Your task to perform on an android device: Open accessibility settings Image 0: 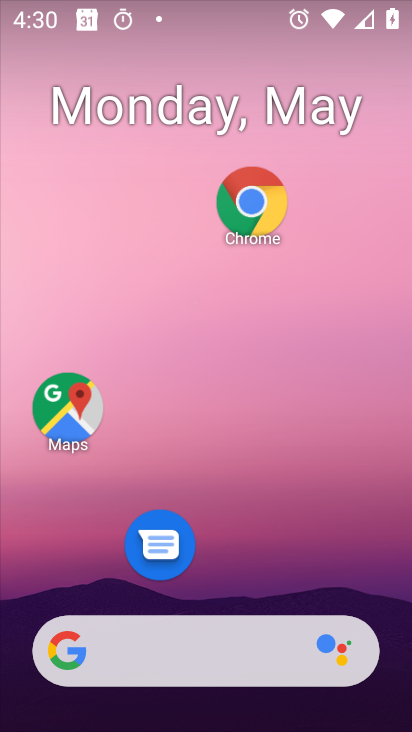
Step 0: drag from (233, 586) to (269, 216)
Your task to perform on an android device: Open accessibility settings Image 1: 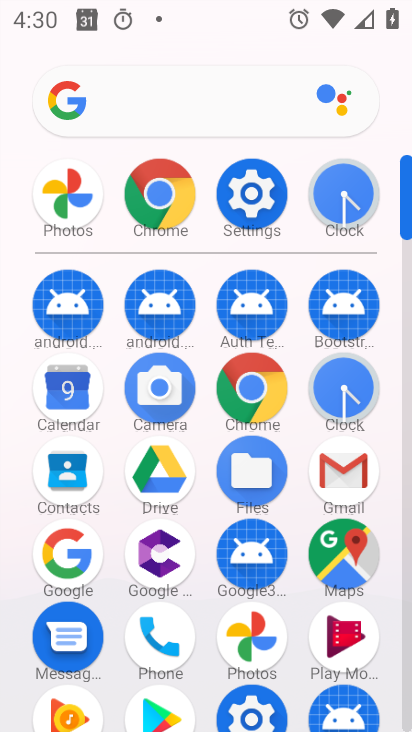
Step 1: click (254, 188)
Your task to perform on an android device: Open accessibility settings Image 2: 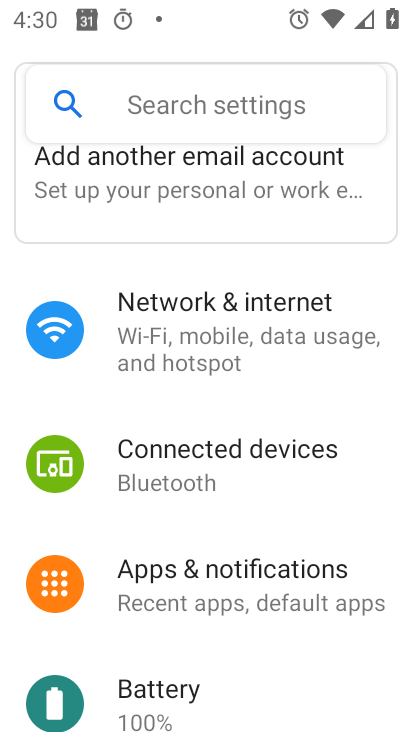
Step 2: drag from (217, 565) to (238, 255)
Your task to perform on an android device: Open accessibility settings Image 3: 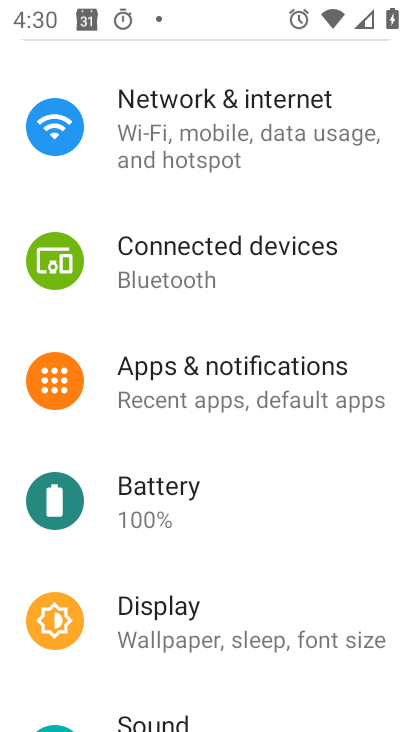
Step 3: drag from (227, 548) to (227, 290)
Your task to perform on an android device: Open accessibility settings Image 4: 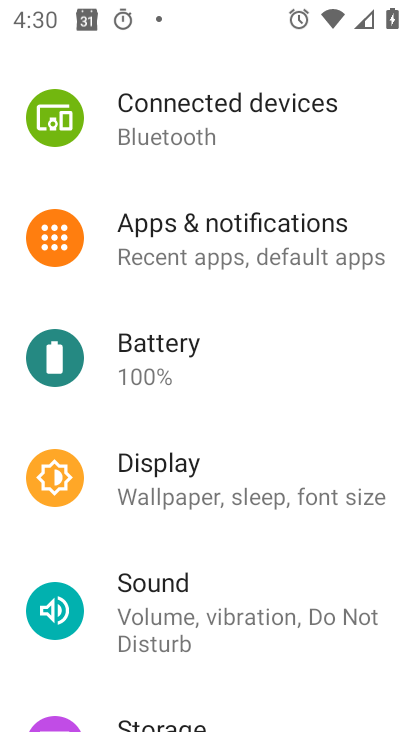
Step 4: drag from (240, 553) to (248, 240)
Your task to perform on an android device: Open accessibility settings Image 5: 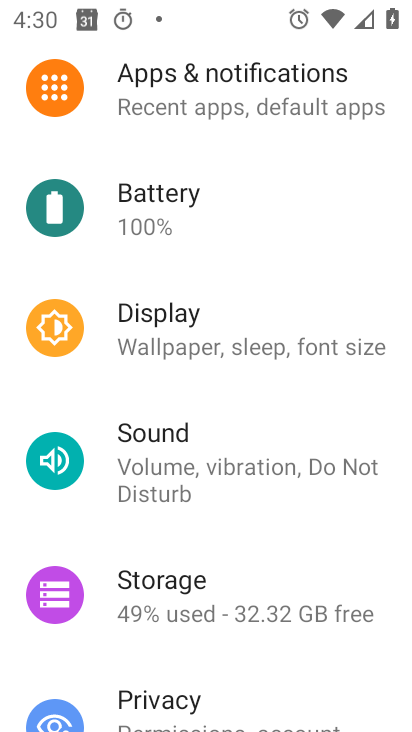
Step 5: drag from (217, 614) to (237, 324)
Your task to perform on an android device: Open accessibility settings Image 6: 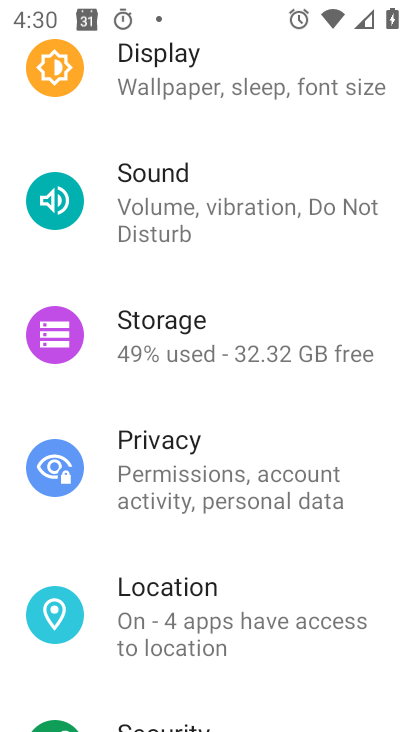
Step 6: drag from (220, 593) to (224, 414)
Your task to perform on an android device: Open accessibility settings Image 7: 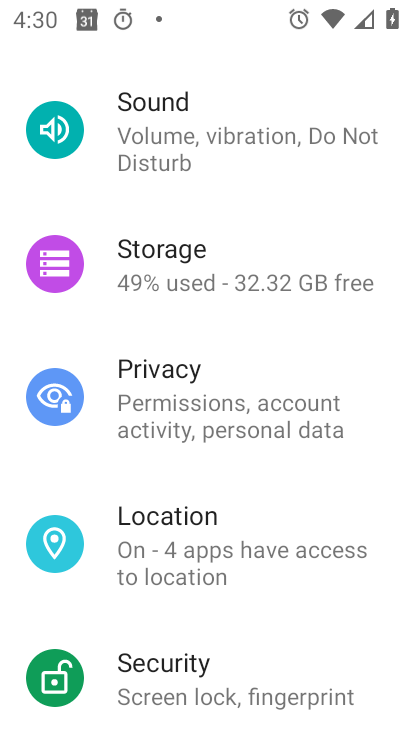
Step 7: drag from (235, 621) to (240, 403)
Your task to perform on an android device: Open accessibility settings Image 8: 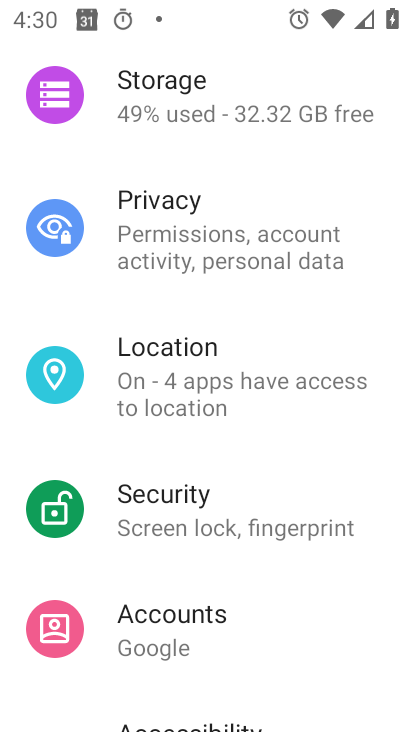
Step 8: drag from (195, 600) to (253, 373)
Your task to perform on an android device: Open accessibility settings Image 9: 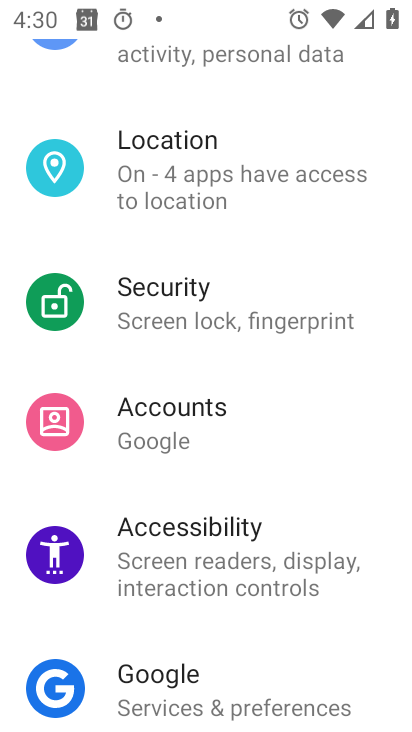
Step 9: click (209, 551)
Your task to perform on an android device: Open accessibility settings Image 10: 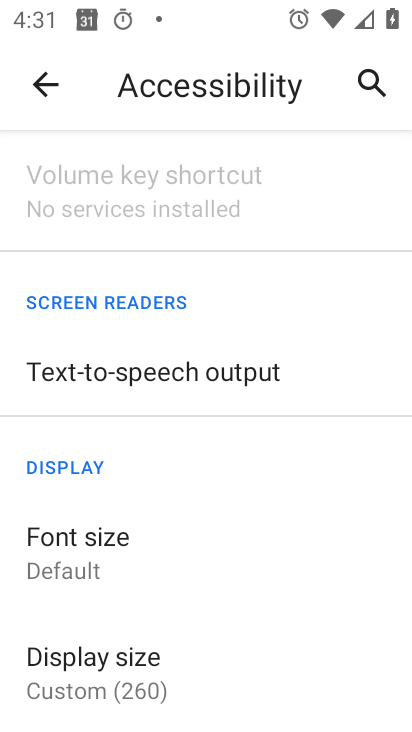
Step 10: task complete